Your task to perform on an android device: open app "Walmart Shopping & Grocery" Image 0: 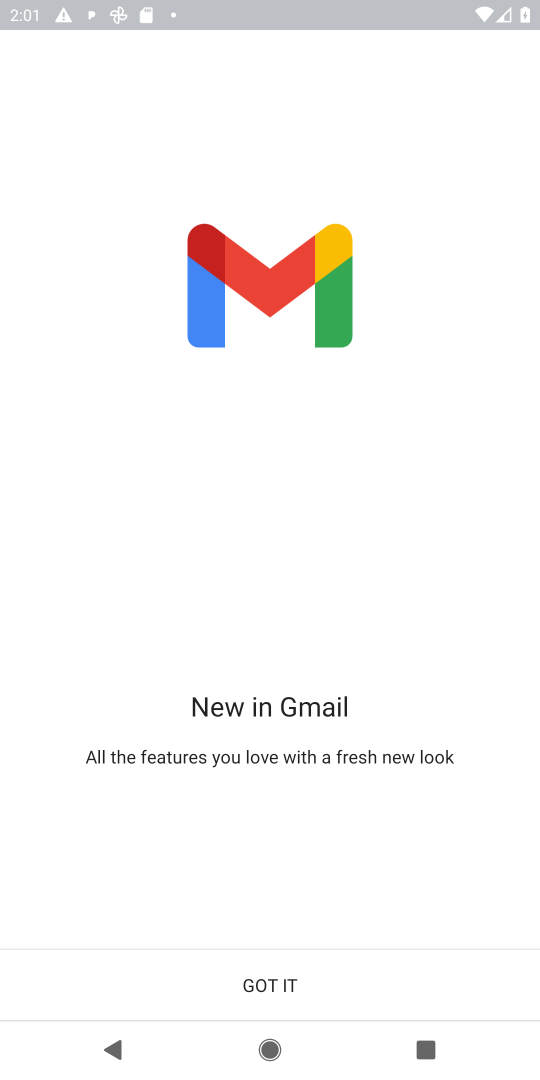
Step 0: press home button
Your task to perform on an android device: open app "Walmart Shopping & Grocery" Image 1: 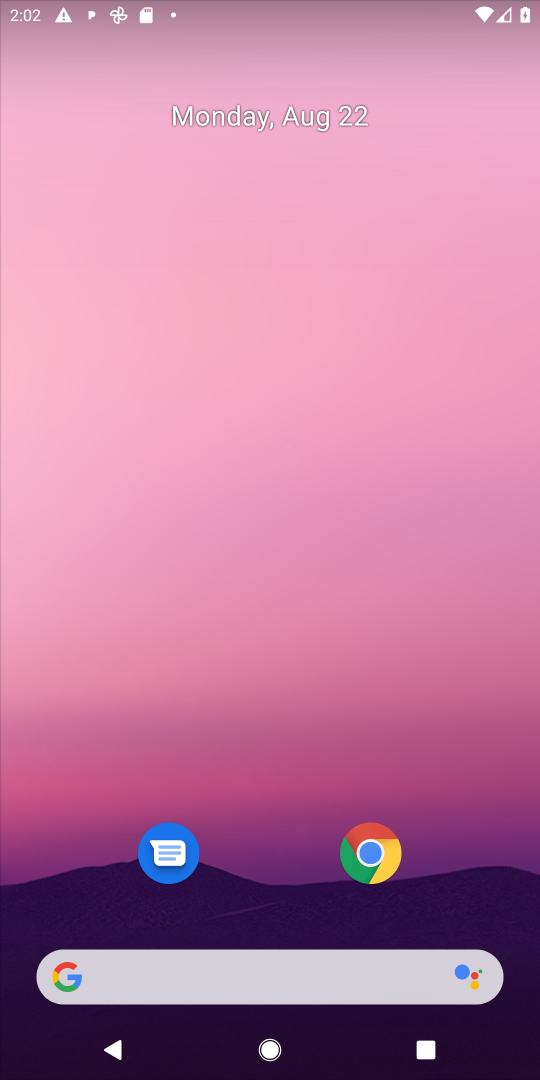
Step 1: drag from (305, 901) to (274, 329)
Your task to perform on an android device: open app "Walmart Shopping & Grocery" Image 2: 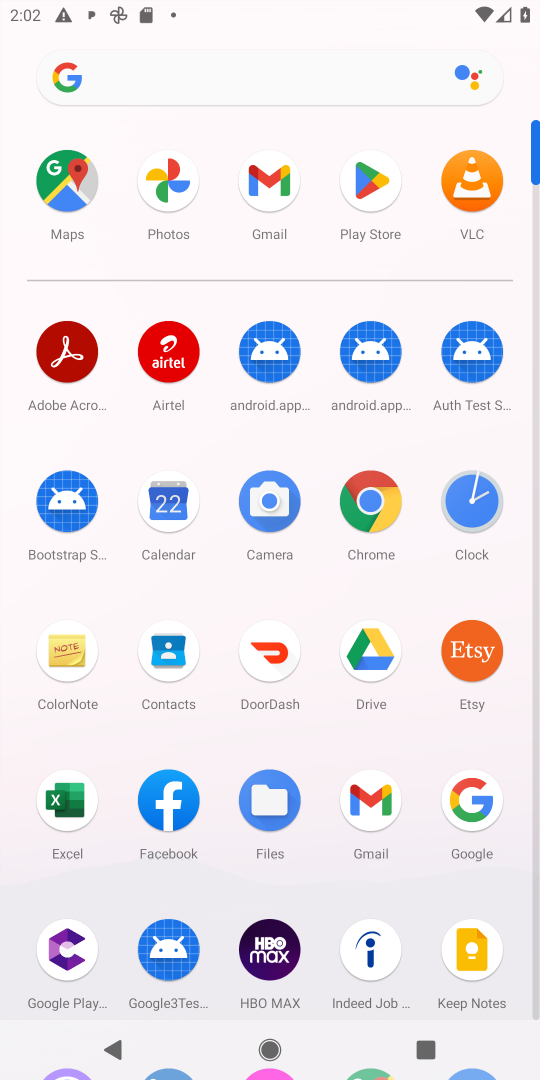
Step 2: click (365, 177)
Your task to perform on an android device: open app "Walmart Shopping & Grocery" Image 3: 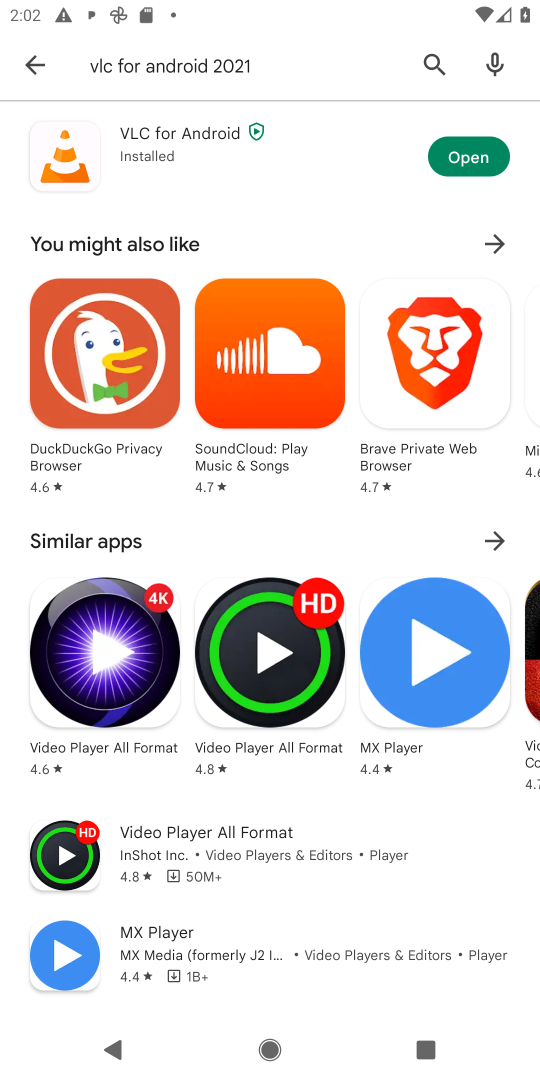
Step 3: click (47, 69)
Your task to perform on an android device: open app "Walmart Shopping & Grocery" Image 4: 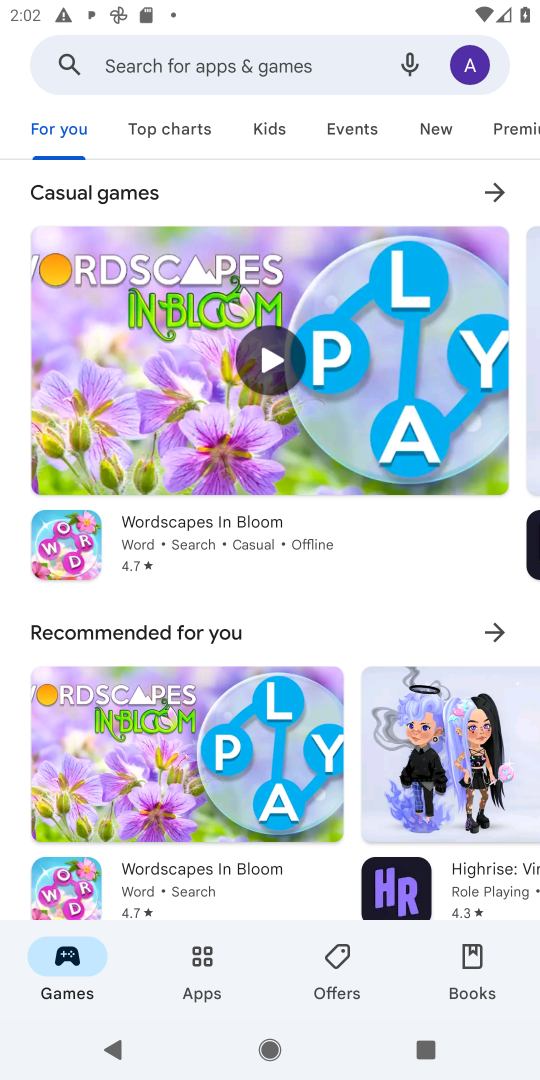
Step 4: click (209, 50)
Your task to perform on an android device: open app "Walmart Shopping & Grocery" Image 5: 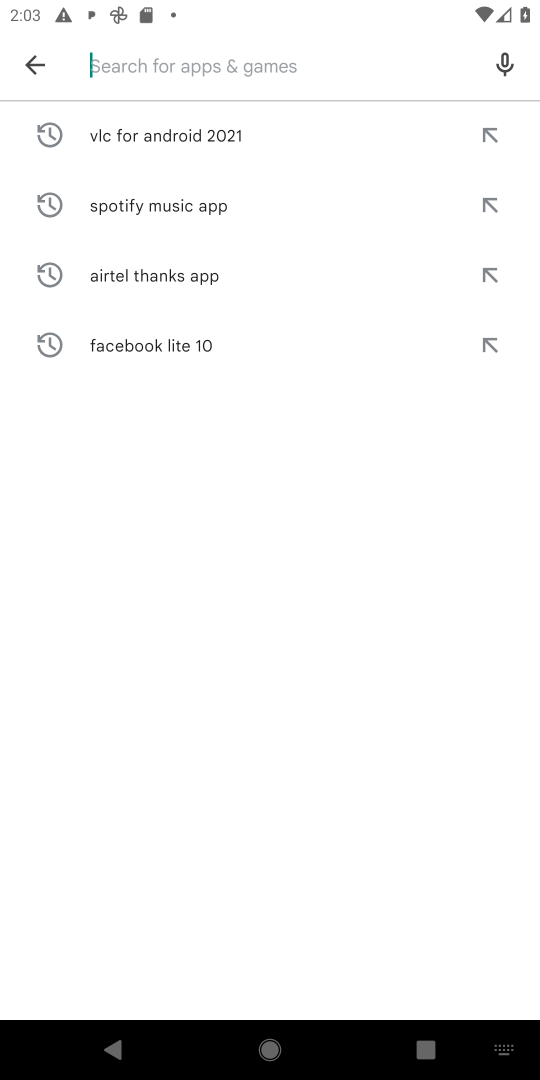
Step 5: type "Walmart Shopping & Grocery "
Your task to perform on an android device: open app "Walmart Shopping & Grocery" Image 6: 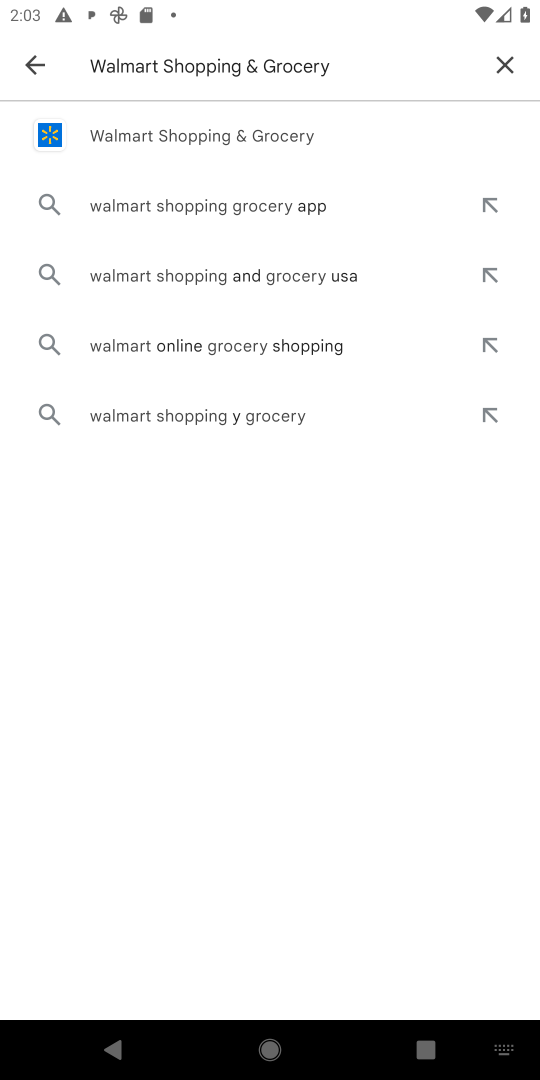
Step 6: click (192, 129)
Your task to perform on an android device: open app "Walmart Shopping & Grocery" Image 7: 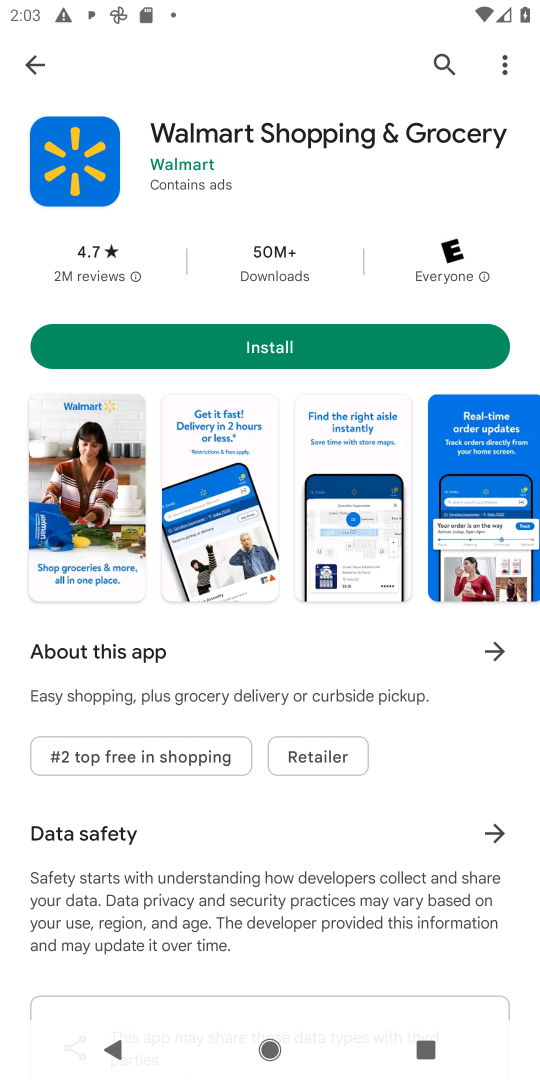
Step 7: click (253, 341)
Your task to perform on an android device: open app "Walmart Shopping & Grocery" Image 8: 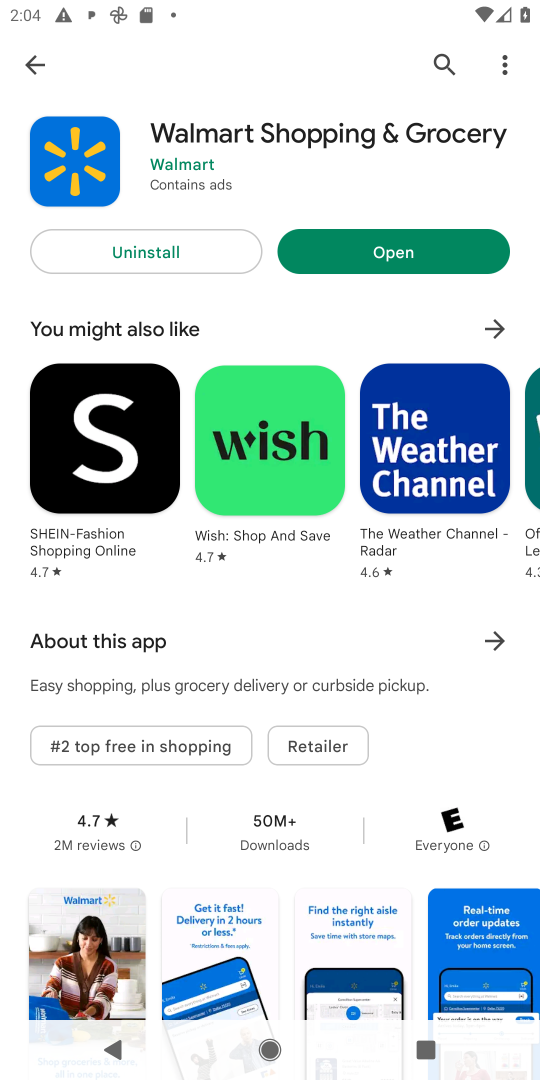
Step 8: click (387, 247)
Your task to perform on an android device: open app "Walmart Shopping & Grocery" Image 9: 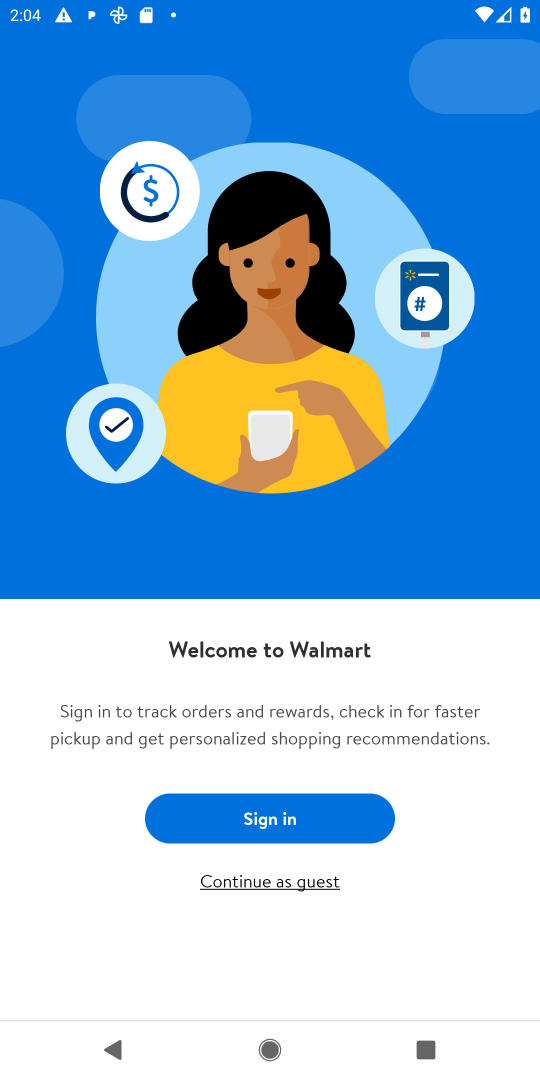
Step 9: task complete